Your task to perform on an android device: Open calendar and show me the third week of next month Image 0: 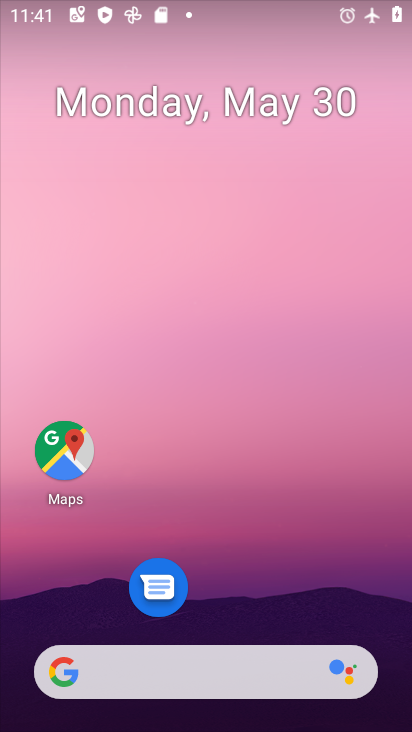
Step 0: drag from (207, 646) to (151, 113)
Your task to perform on an android device: Open calendar and show me the third week of next month Image 1: 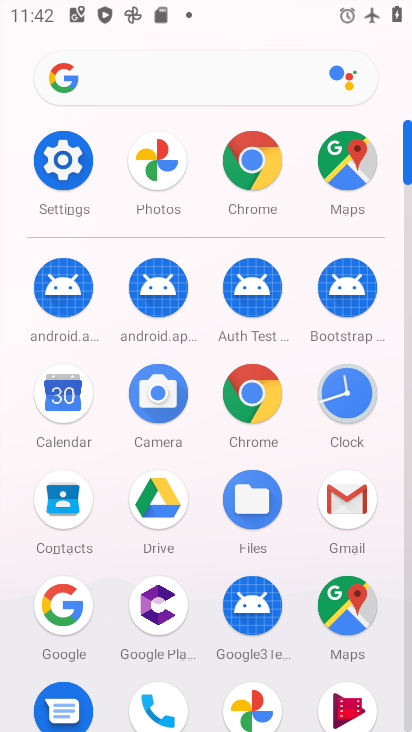
Step 1: click (57, 417)
Your task to perform on an android device: Open calendar and show me the third week of next month Image 2: 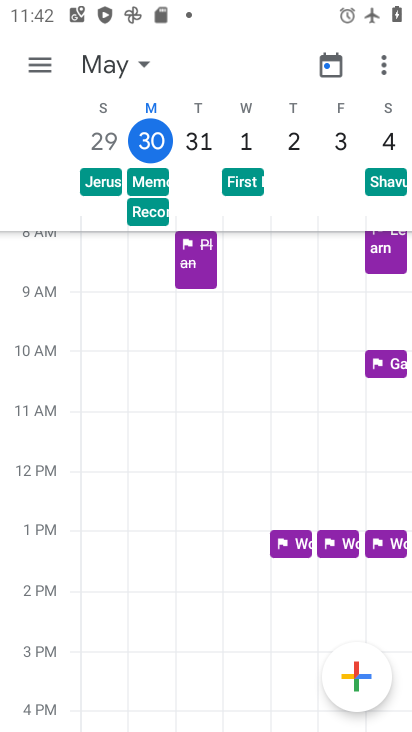
Step 2: task complete